Your task to perform on an android device: open chrome privacy settings Image 0: 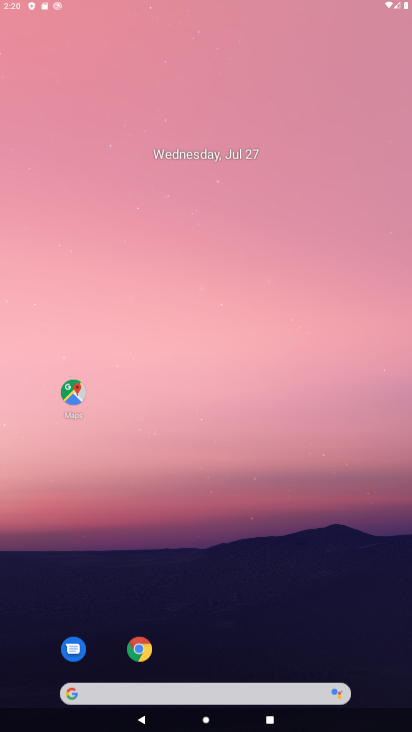
Step 0: click (209, 52)
Your task to perform on an android device: open chrome privacy settings Image 1: 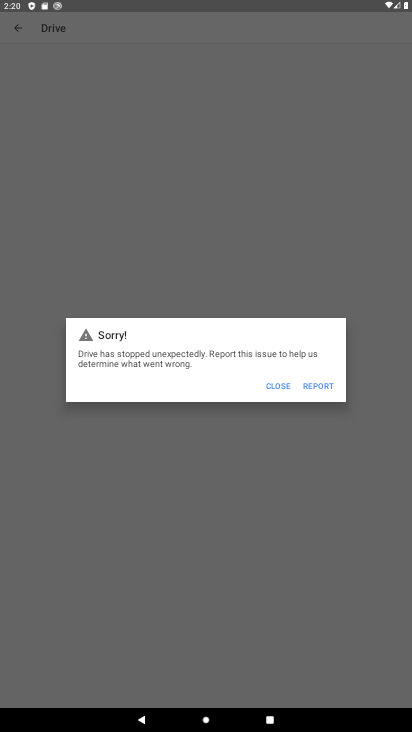
Step 1: press home button
Your task to perform on an android device: open chrome privacy settings Image 2: 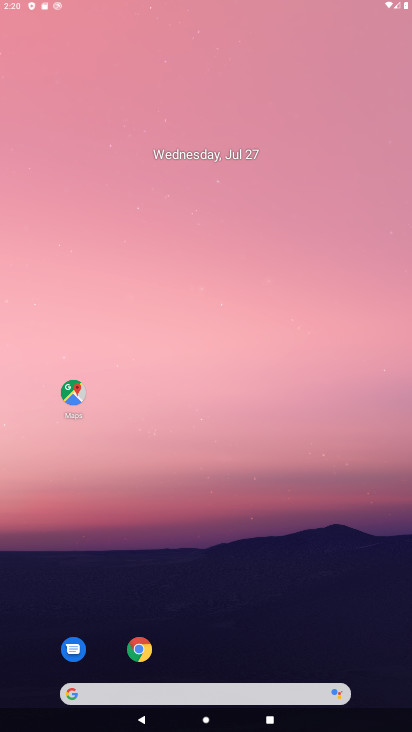
Step 2: drag from (364, 638) to (265, 60)
Your task to perform on an android device: open chrome privacy settings Image 3: 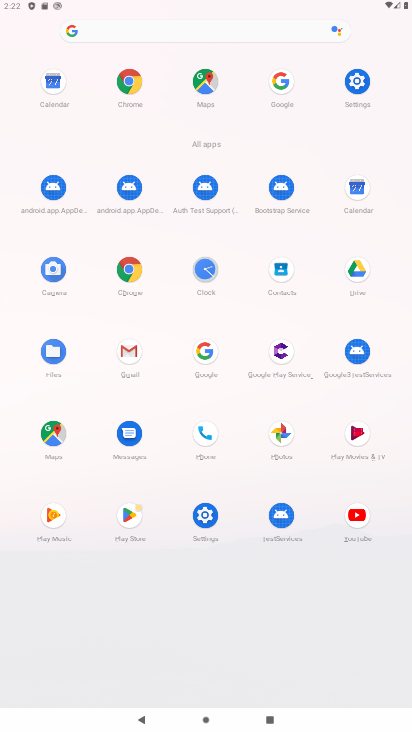
Step 3: click (137, 269)
Your task to perform on an android device: open chrome privacy settings Image 4: 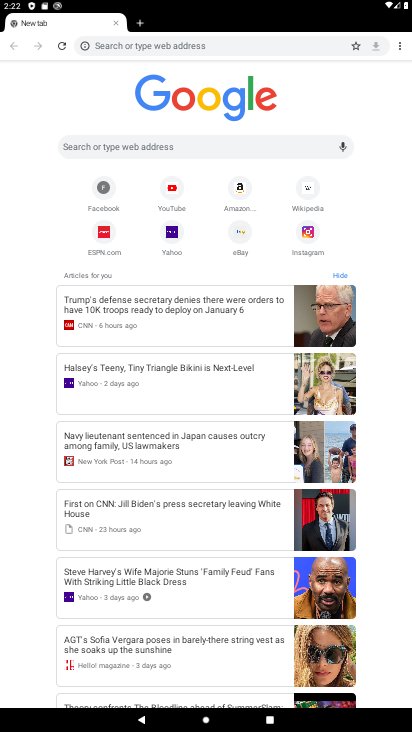
Step 4: click (402, 48)
Your task to perform on an android device: open chrome privacy settings Image 5: 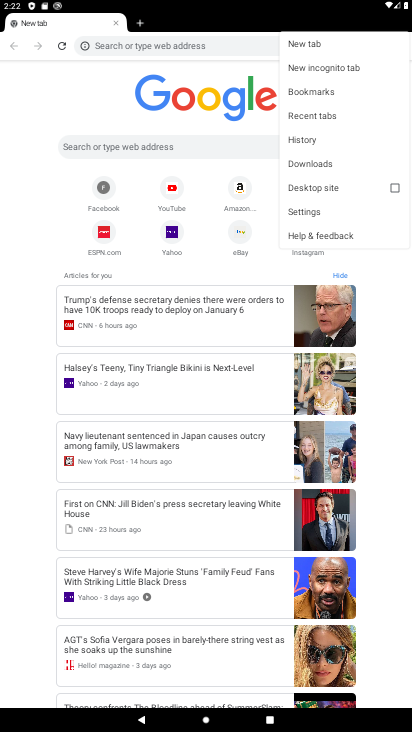
Step 5: click (300, 207)
Your task to perform on an android device: open chrome privacy settings Image 6: 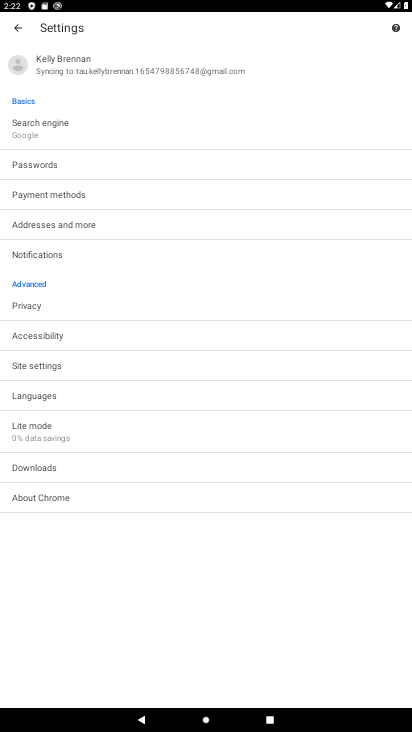
Step 6: click (51, 302)
Your task to perform on an android device: open chrome privacy settings Image 7: 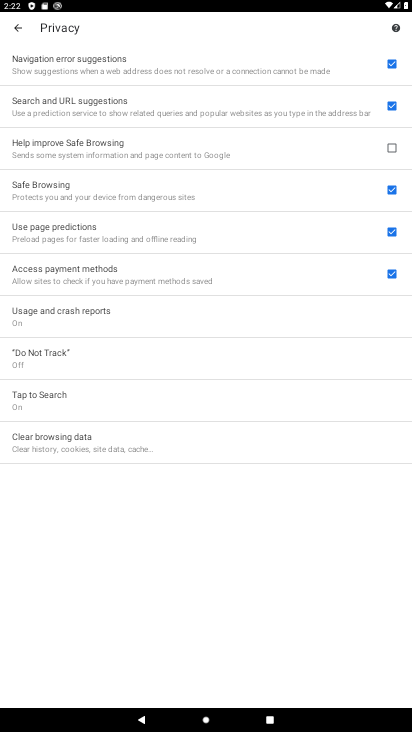
Step 7: task complete